Your task to perform on an android device: turn on location history Image 0: 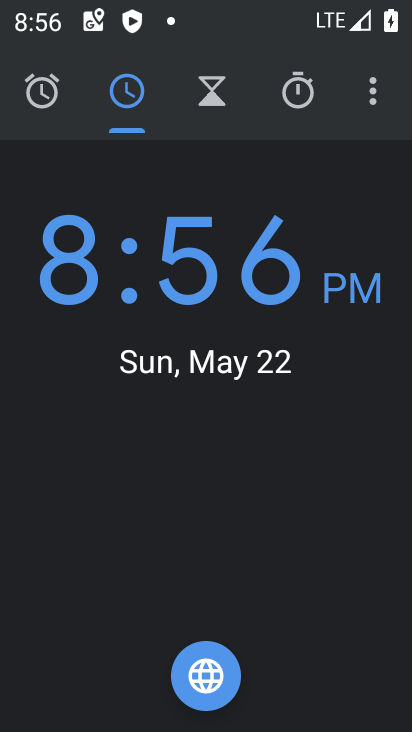
Step 0: press home button
Your task to perform on an android device: turn on location history Image 1: 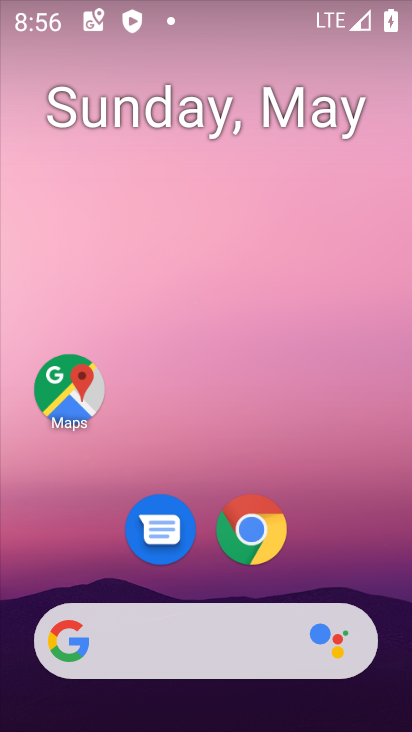
Step 1: drag from (219, 575) to (160, 98)
Your task to perform on an android device: turn on location history Image 2: 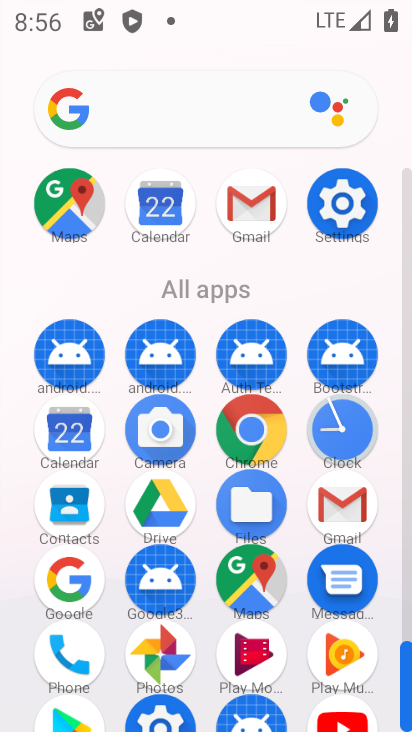
Step 2: click (344, 220)
Your task to perform on an android device: turn on location history Image 3: 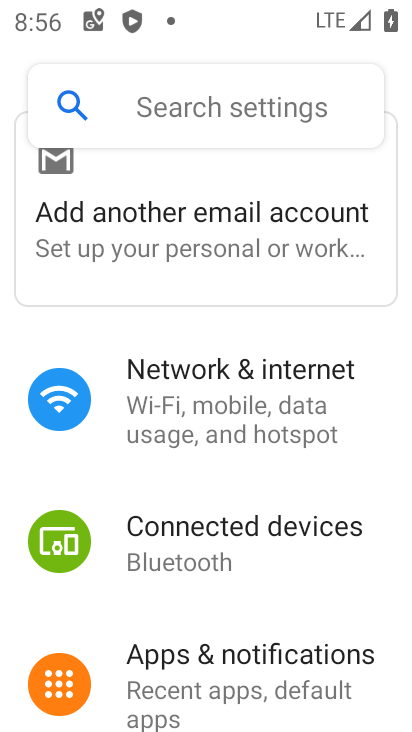
Step 3: drag from (187, 653) to (166, 337)
Your task to perform on an android device: turn on location history Image 4: 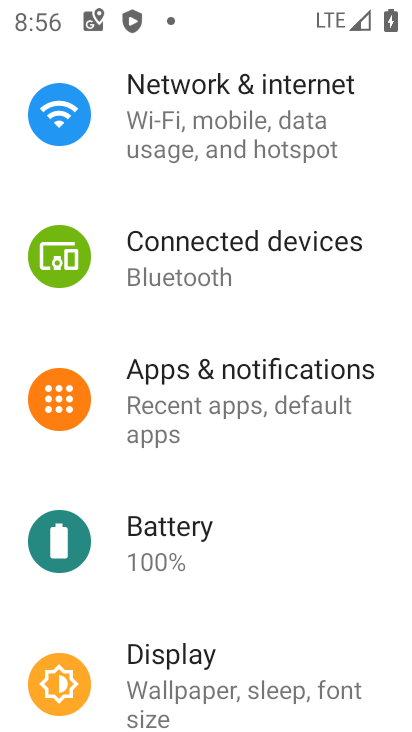
Step 4: drag from (204, 610) to (183, 370)
Your task to perform on an android device: turn on location history Image 5: 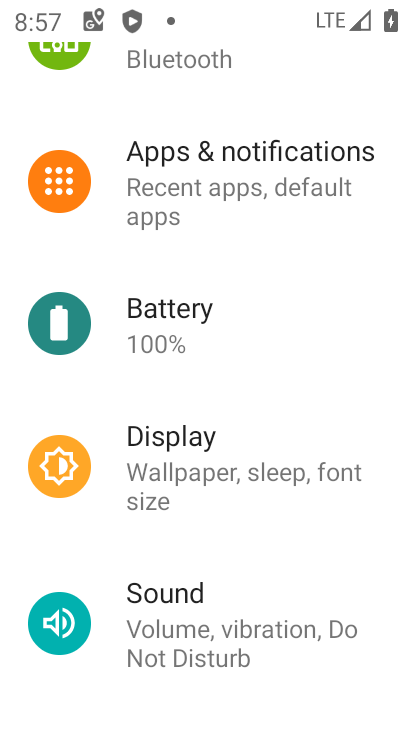
Step 5: drag from (192, 662) to (160, 382)
Your task to perform on an android device: turn on location history Image 6: 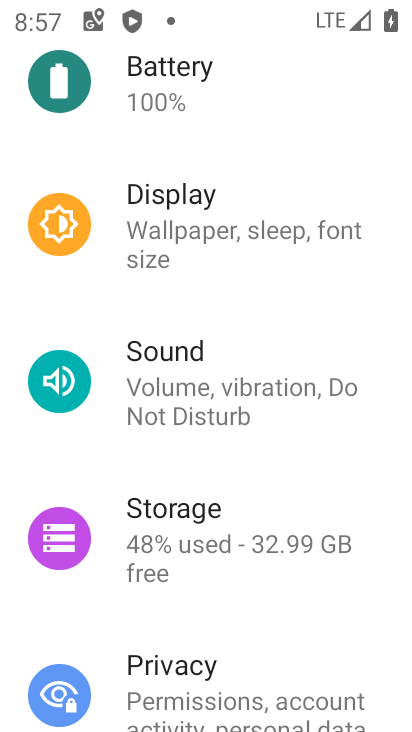
Step 6: drag from (221, 700) to (228, 406)
Your task to perform on an android device: turn on location history Image 7: 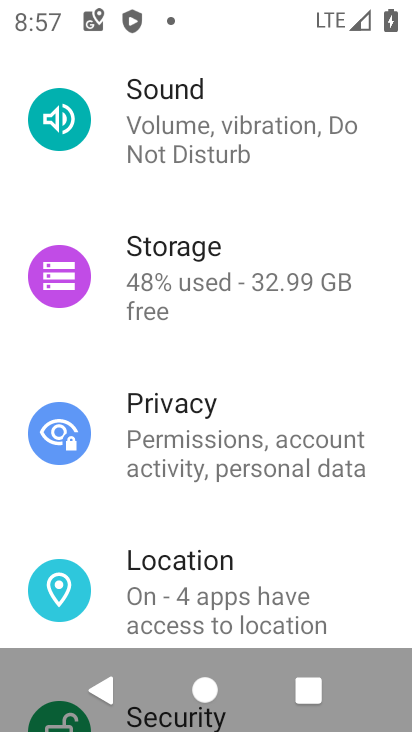
Step 7: click (224, 591)
Your task to perform on an android device: turn on location history Image 8: 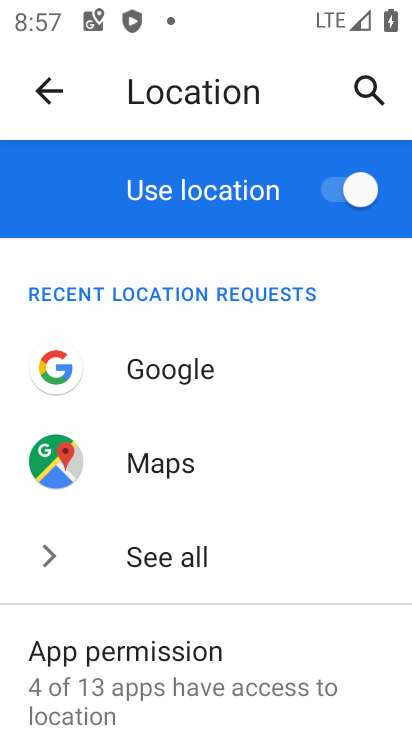
Step 8: drag from (256, 684) to (244, 261)
Your task to perform on an android device: turn on location history Image 9: 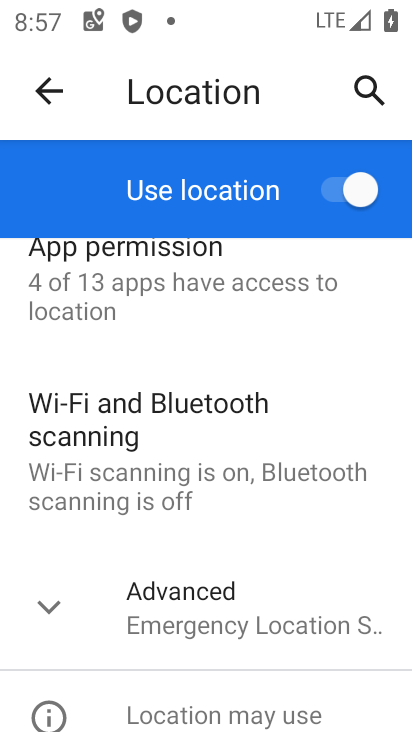
Step 9: click (185, 596)
Your task to perform on an android device: turn on location history Image 10: 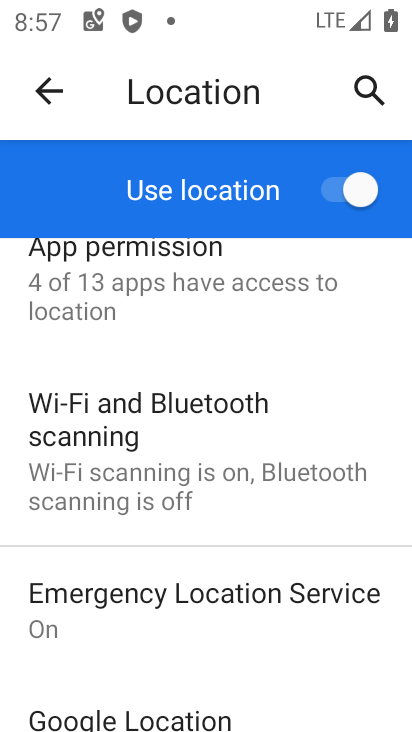
Step 10: drag from (189, 667) to (197, 401)
Your task to perform on an android device: turn on location history Image 11: 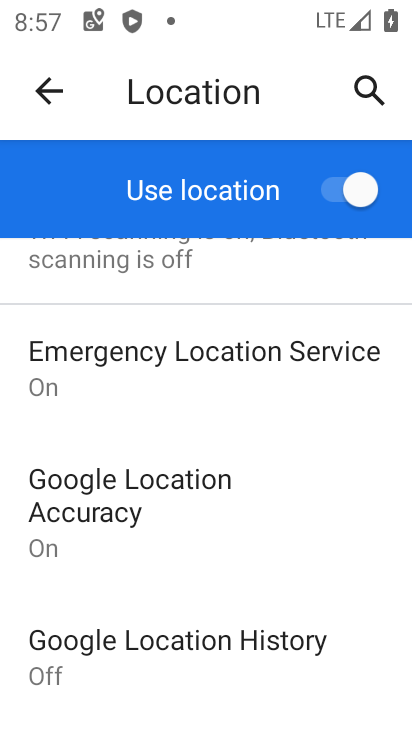
Step 11: click (207, 637)
Your task to perform on an android device: turn on location history Image 12: 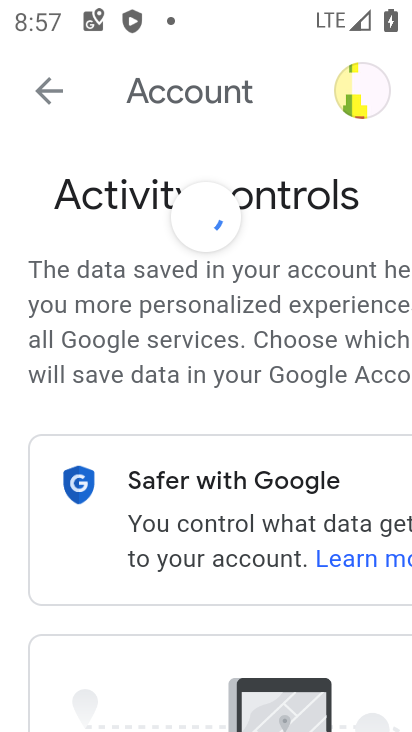
Step 12: drag from (184, 686) to (253, 135)
Your task to perform on an android device: turn on location history Image 13: 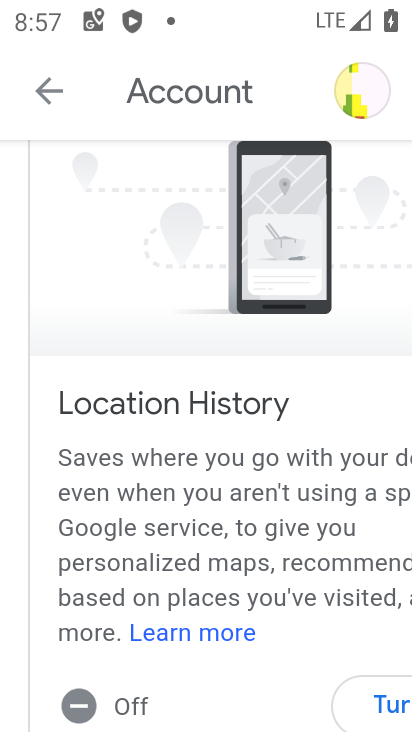
Step 13: drag from (273, 672) to (271, 352)
Your task to perform on an android device: turn on location history Image 14: 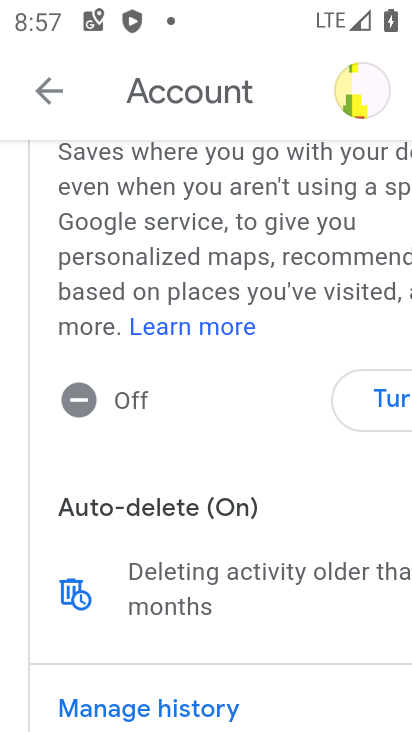
Step 14: click (375, 407)
Your task to perform on an android device: turn on location history Image 15: 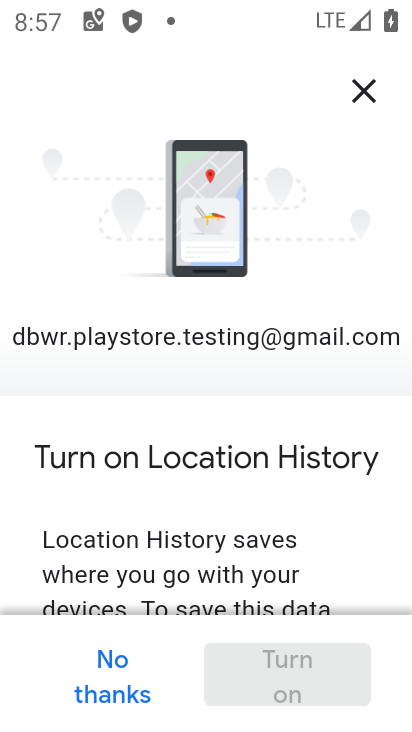
Step 15: drag from (263, 417) to (284, 129)
Your task to perform on an android device: turn on location history Image 16: 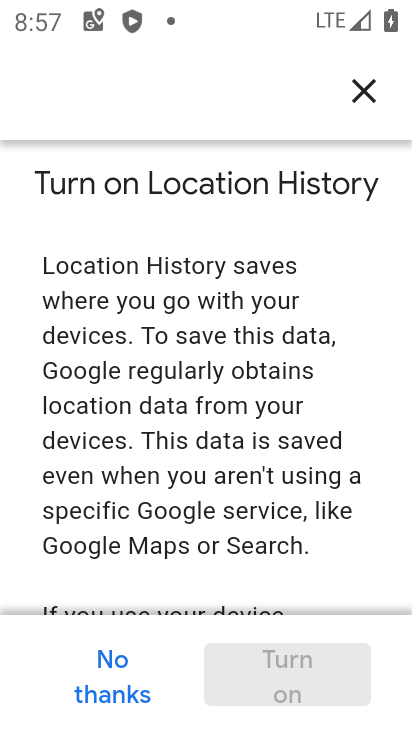
Step 16: drag from (250, 535) to (268, 150)
Your task to perform on an android device: turn on location history Image 17: 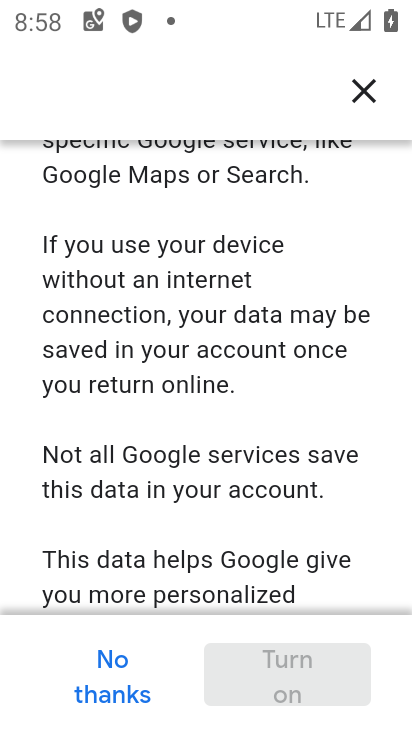
Step 17: drag from (273, 563) to (272, 226)
Your task to perform on an android device: turn on location history Image 18: 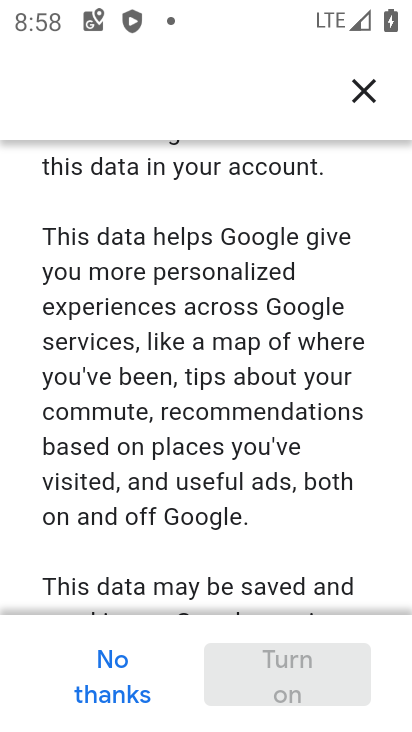
Step 18: drag from (297, 538) to (260, 174)
Your task to perform on an android device: turn on location history Image 19: 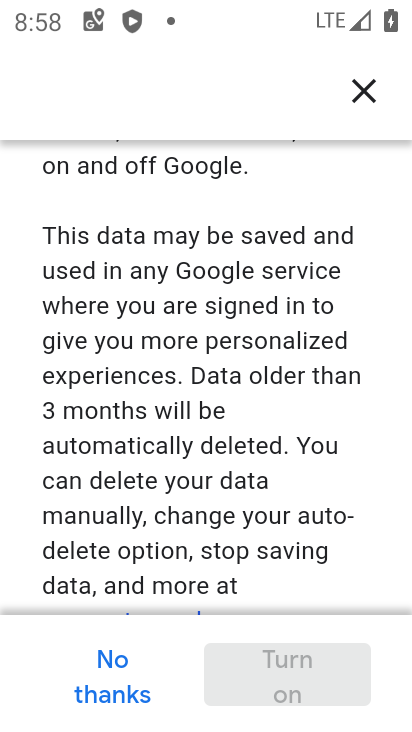
Step 19: drag from (282, 510) to (259, 228)
Your task to perform on an android device: turn on location history Image 20: 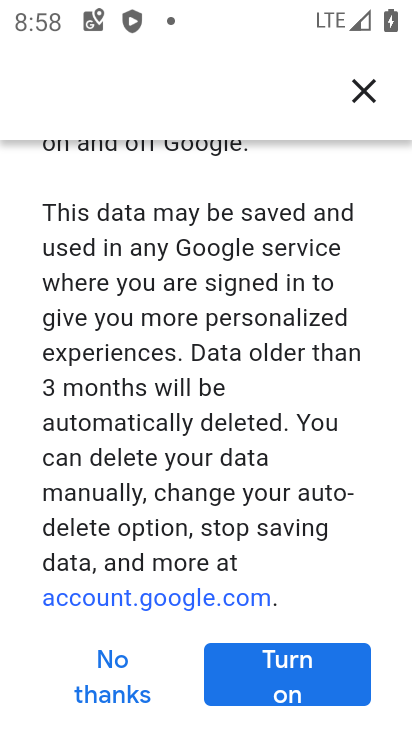
Step 20: click (274, 686)
Your task to perform on an android device: turn on location history Image 21: 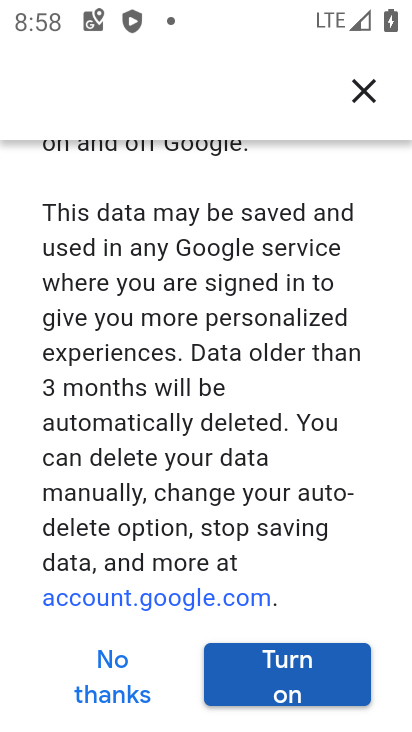
Step 21: click (246, 687)
Your task to perform on an android device: turn on location history Image 22: 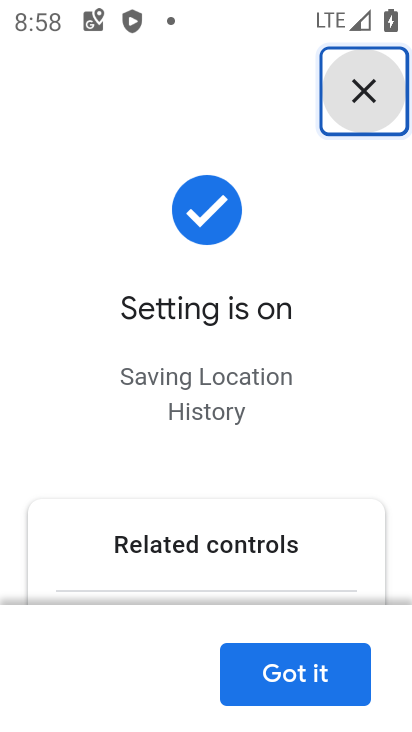
Step 22: click (346, 683)
Your task to perform on an android device: turn on location history Image 23: 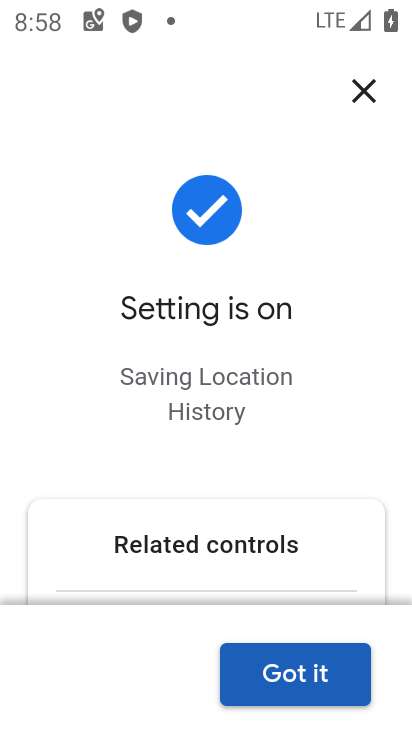
Step 23: task complete